Your task to perform on an android device: Go to eBay Image 0: 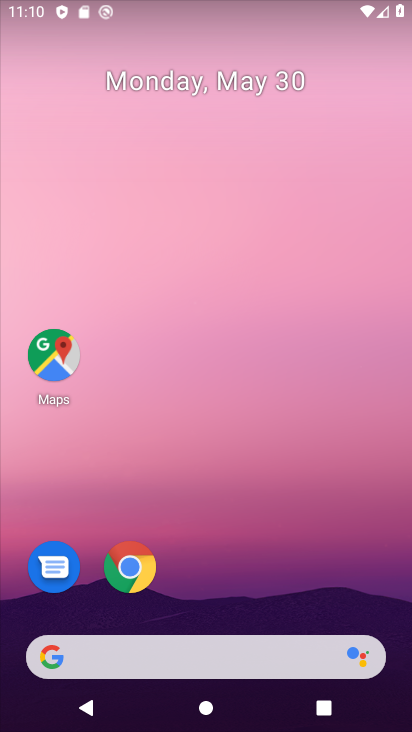
Step 0: drag from (213, 534) to (306, 23)
Your task to perform on an android device: Go to eBay Image 1: 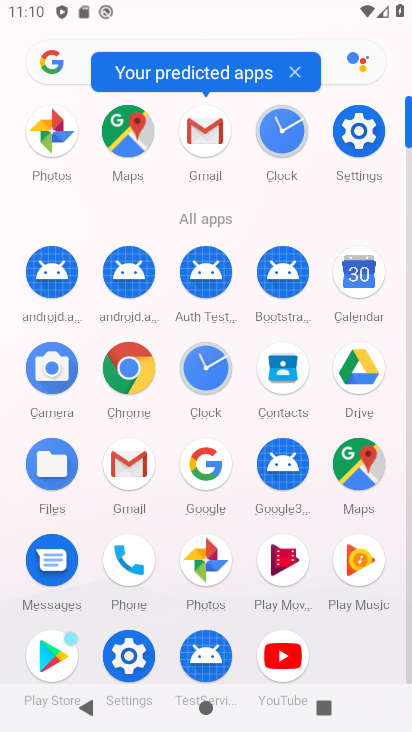
Step 1: click (209, 467)
Your task to perform on an android device: Go to eBay Image 2: 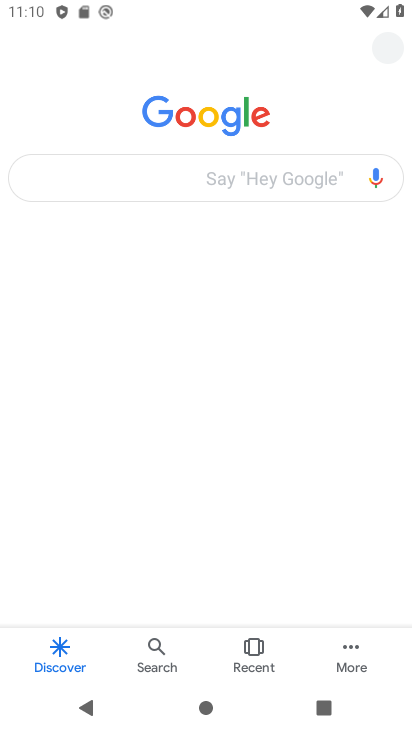
Step 2: click (164, 171)
Your task to perform on an android device: Go to eBay Image 3: 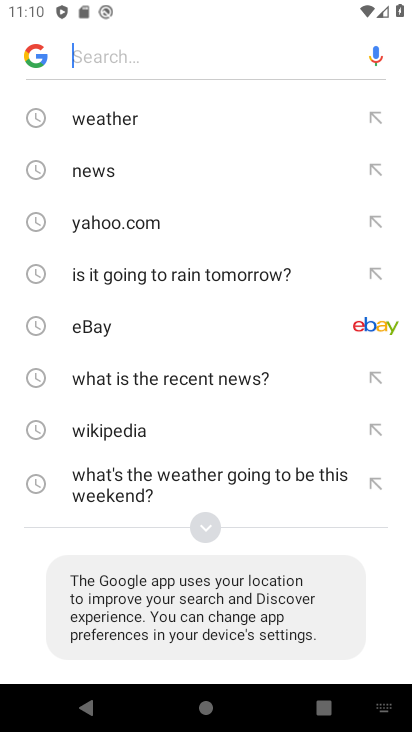
Step 3: click (206, 524)
Your task to perform on an android device: Go to eBay Image 4: 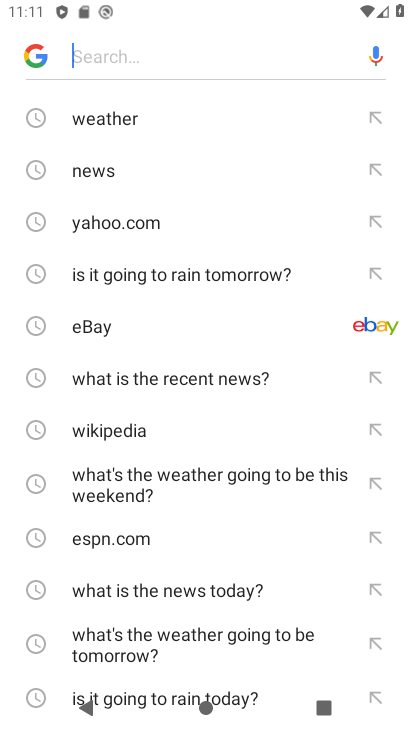
Step 4: click (104, 324)
Your task to perform on an android device: Go to eBay Image 5: 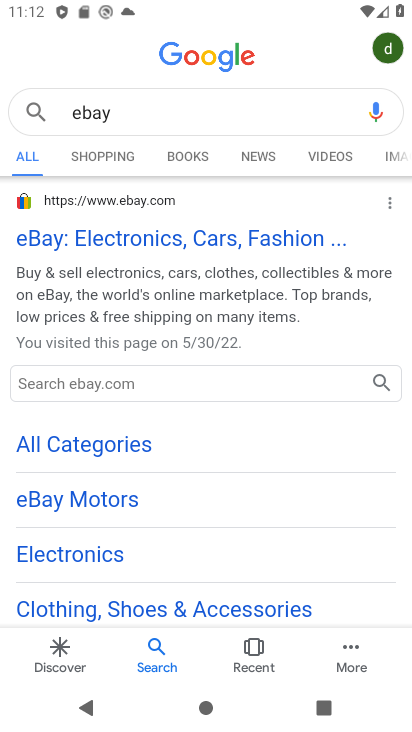
Step 5: task complete